Your task to perform on an android device: Search for Italian restaurants on Maps Image 0: 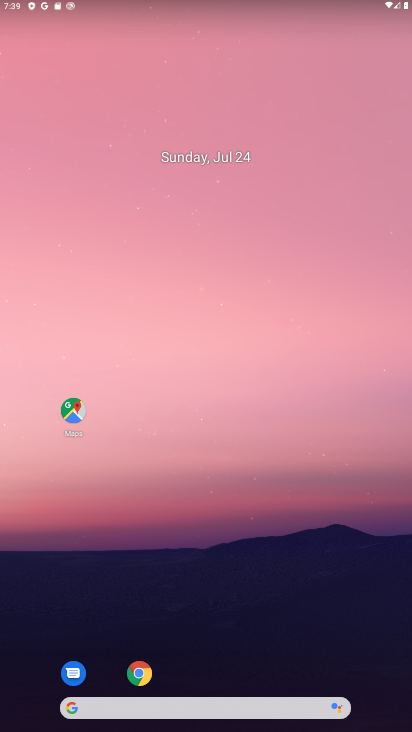
Step 0: click (75, 423)
Your task to perform on an android device: Search for Italian restaurants on Maps Image 1: 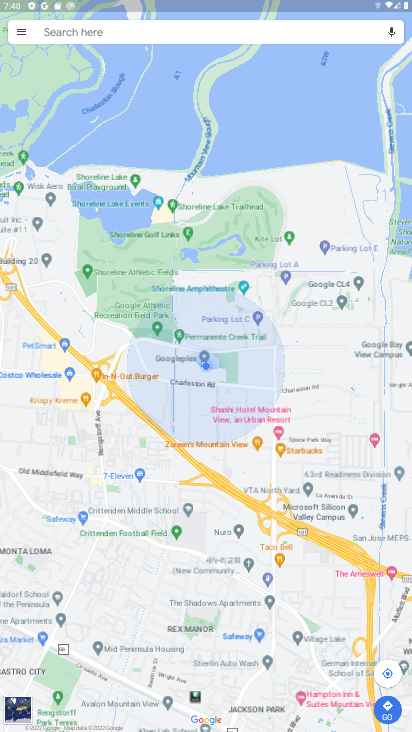
Step 1: click (60, 31)
Your task to perform on an android device: Search for Italian restaurants on Maps Image 2: 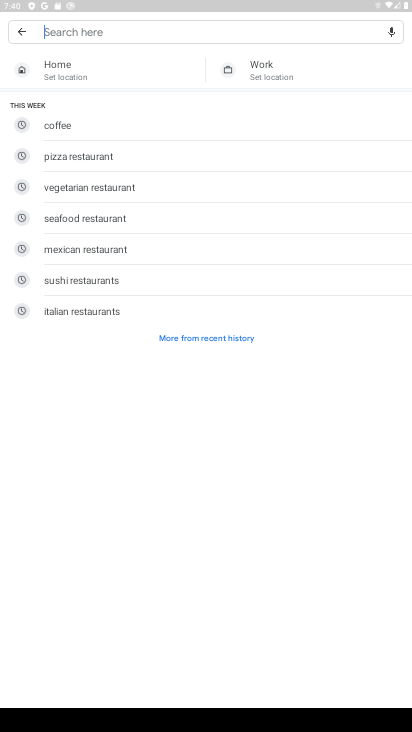
Step 2: click (99, 312)
Your task to perform on an android device: Search for Italian restaurants on Maps Image 3: 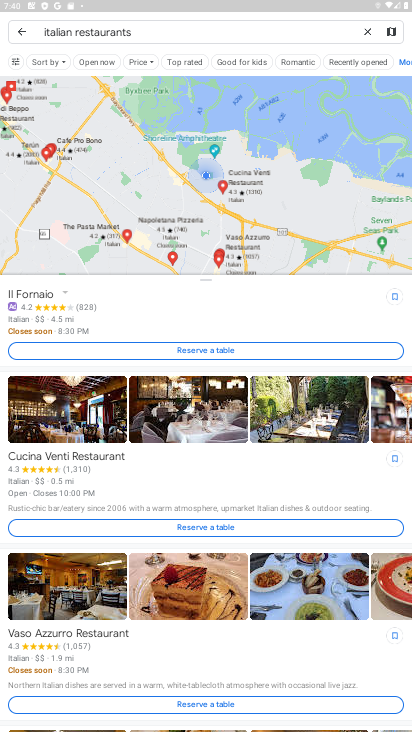
Step 3: task complete